Your task to perform on an android device: add a contact Image 0: 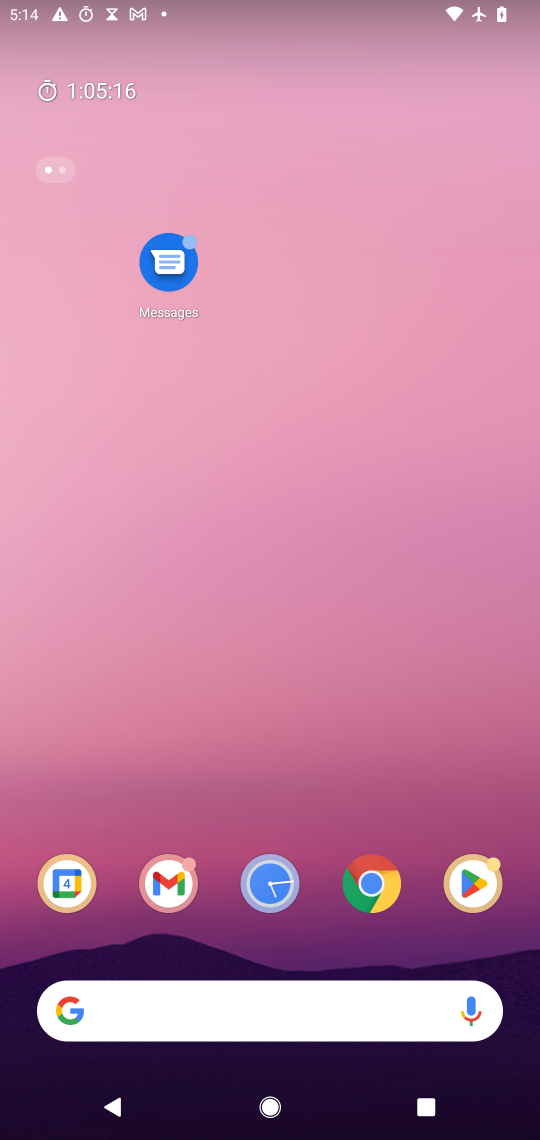
Step 0: drag from (315, 964) to (346, 64)
Your task to perform on an android device: add a contact Image 1: 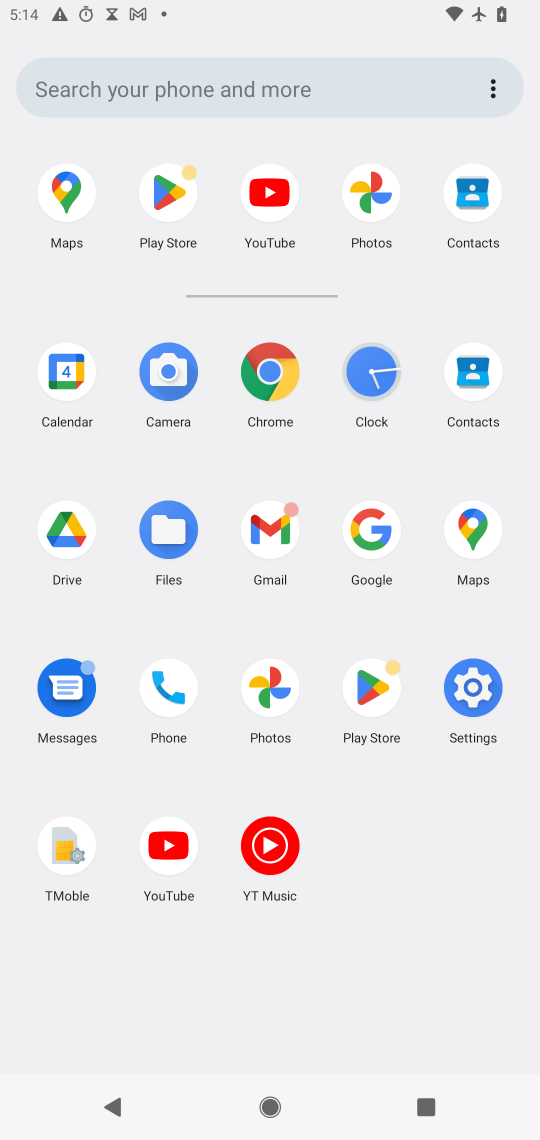
Step 1: click (473, 358)
Your task to perform on an android device: add a contact Image 2: 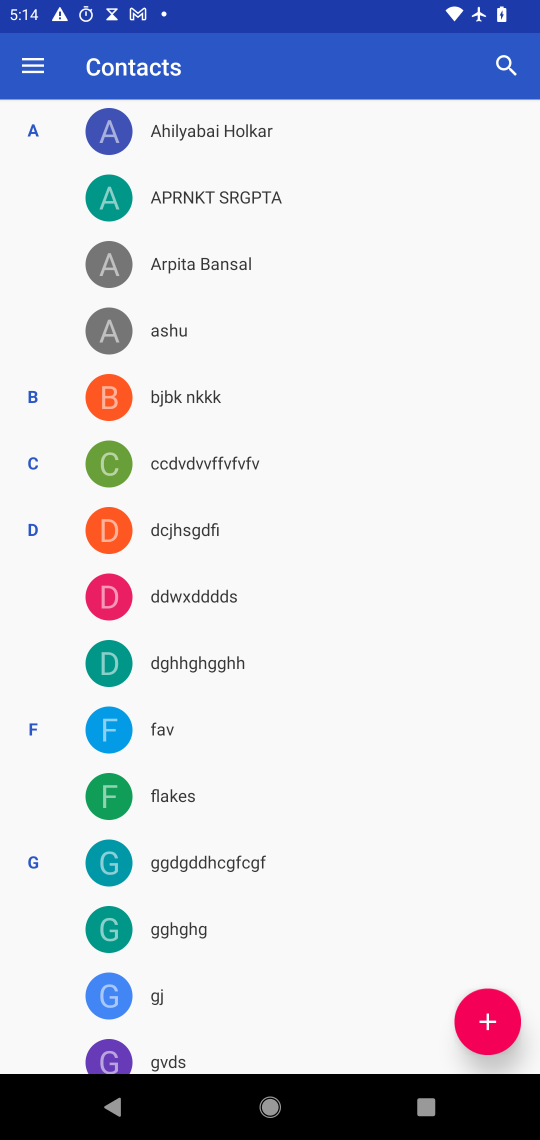
Step 2: click (488, 1016)
Your task to perform on an android device: add a contact Image 3: 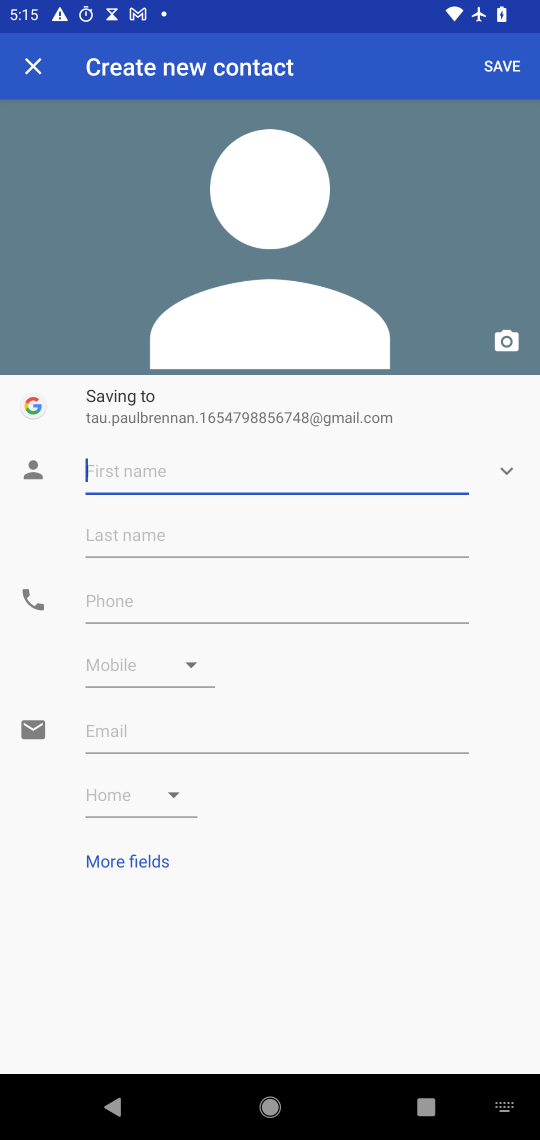
Step 3: type "samhu"
Your task to perform on an android device: add a contact Image 4: 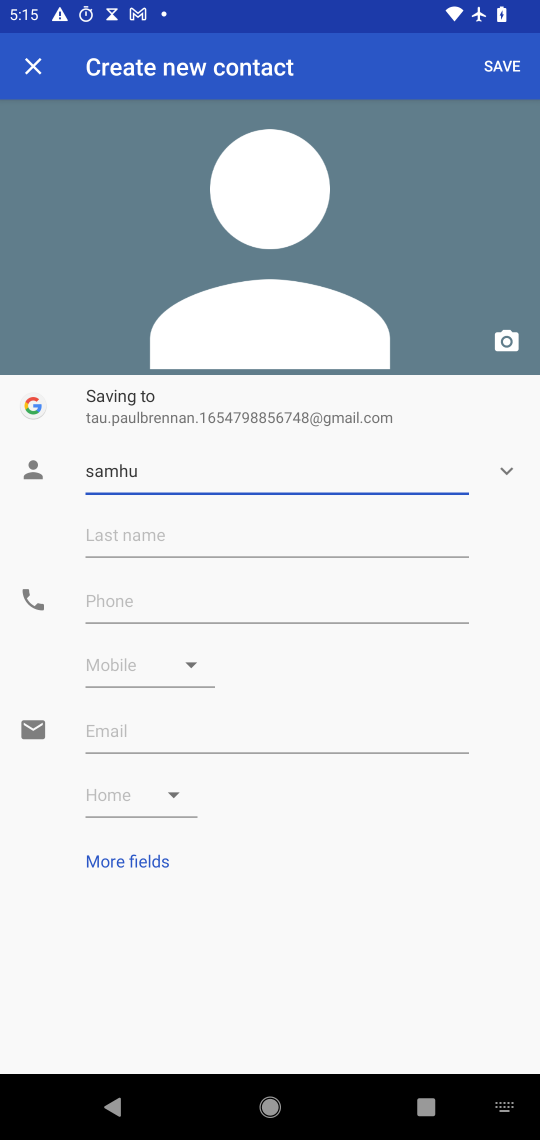
Step 4: click (193, 612)
Your task to perform on an android device: add a contact Image 5: 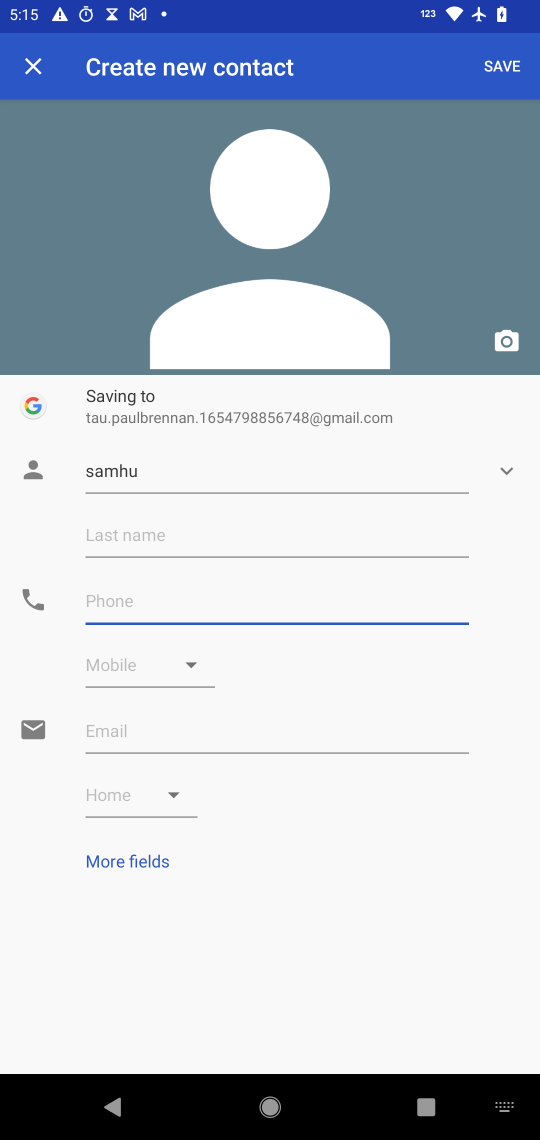
Step 5: type "767688"
Your task to perform on an android device: add a contact Image 6: 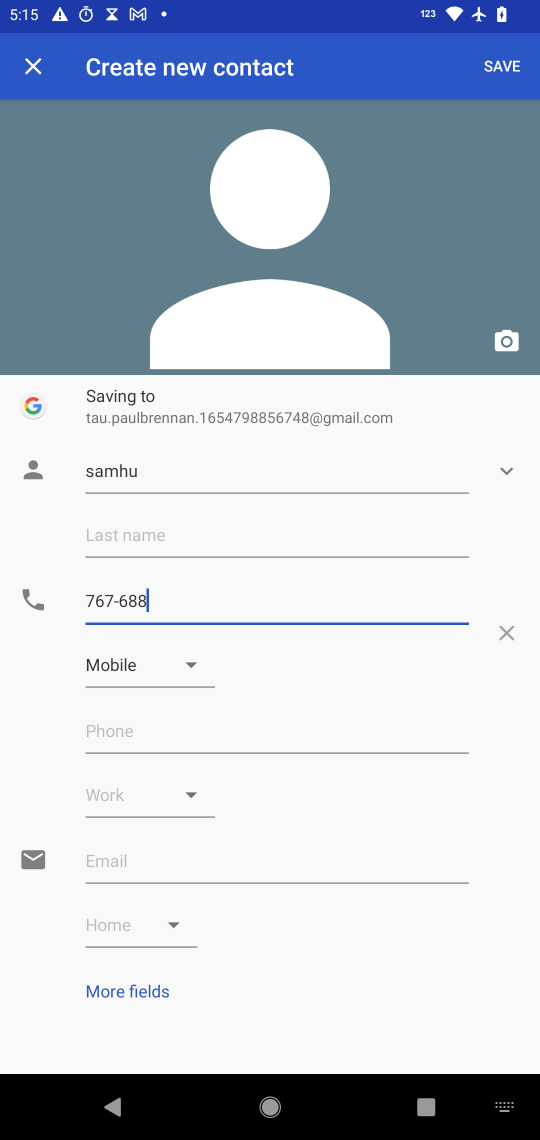
Step 6: click (508, 63)
Your task to perform on an android device: add a contact Image 7: 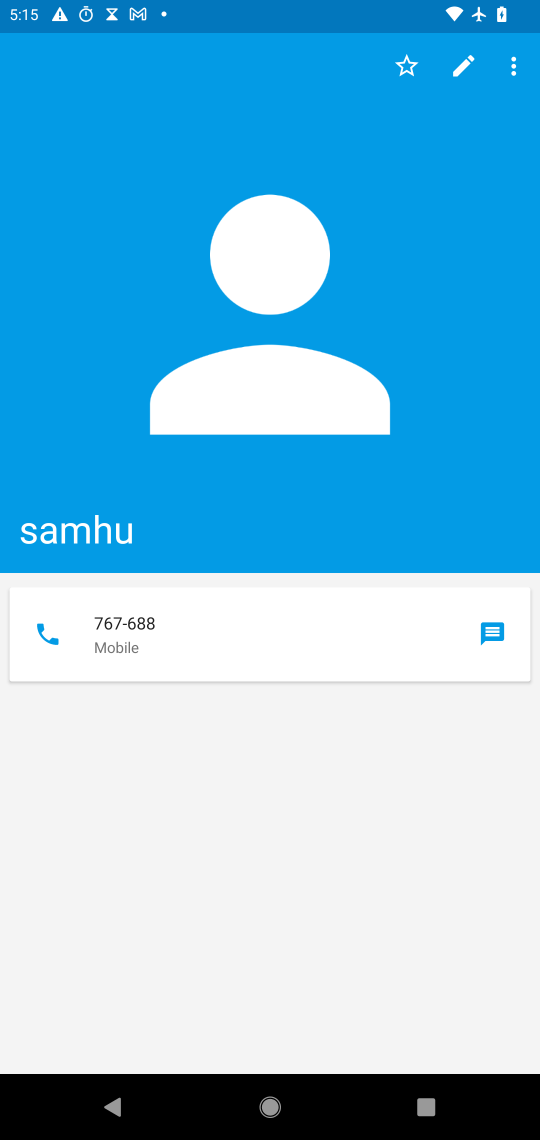
Step 7: task complete